Your task to perform on an android device: see creations saved in the google photos Image 0: 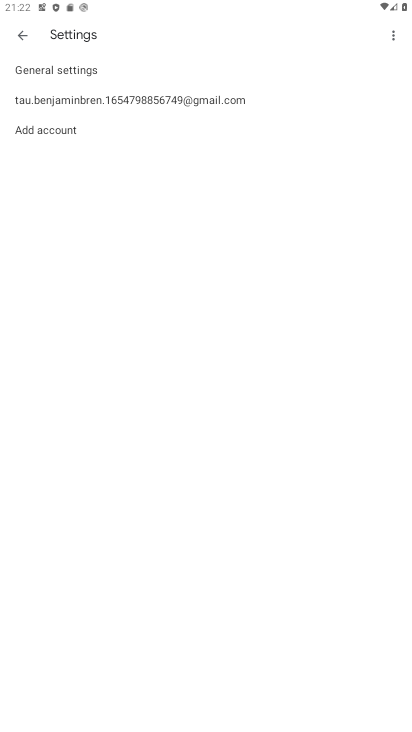
Step 0: press home button
Your task to perform on an android device: see creations saved in the google photos Image 1: 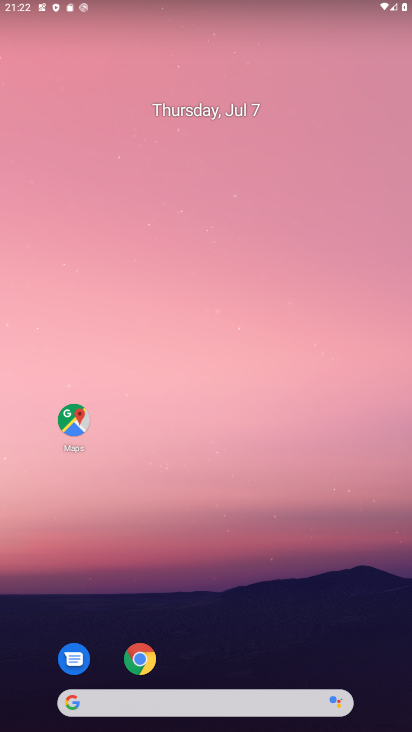
Step 1: drag from (238, 584) to (353, 6)
Your task to perform on an android device: see creations saved in the google photos Image 2: 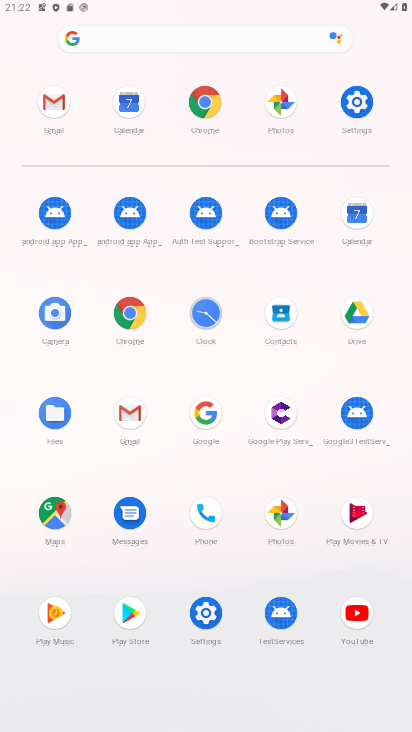
Step 2: click (274, 518)
Your task to perform on an android device: see creations saved in the google photos Image 3: 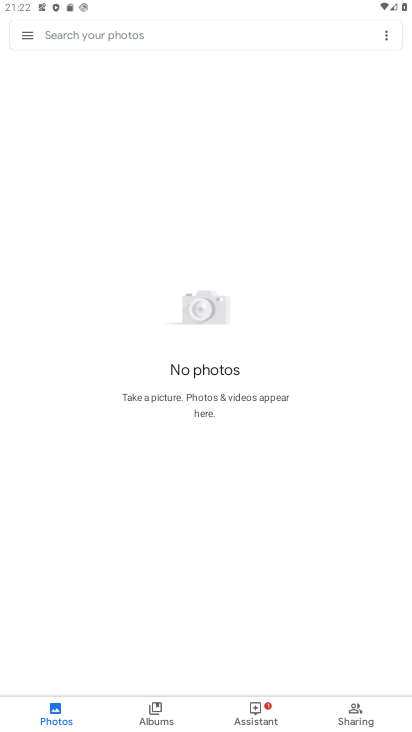
Step 3: click (228, 39)
Your task to perform on an android device: see creations saved in the google photos Image 4: 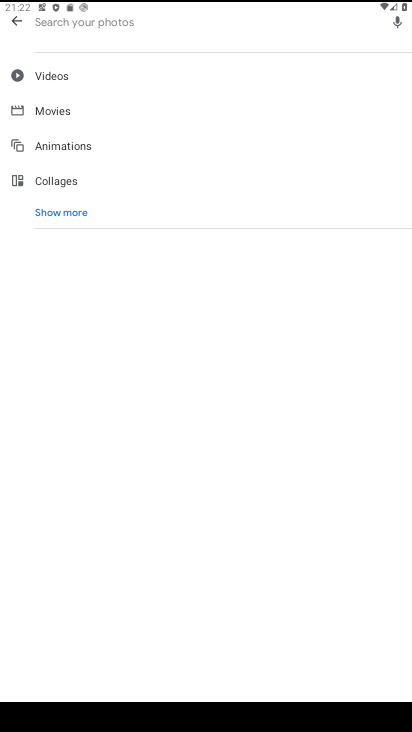
Step 4: type "creations"
Your task to perform on an android device: see creations saved in the google photos Image 5: 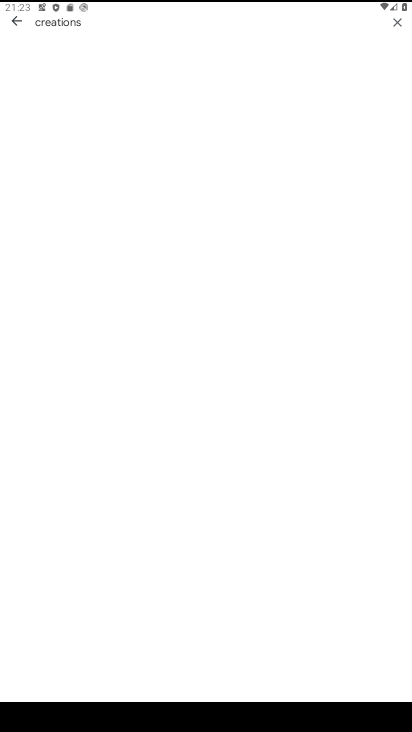
Step 5: task complete